Your task to perform on an android device: see creations saved in the google photos Image 0: 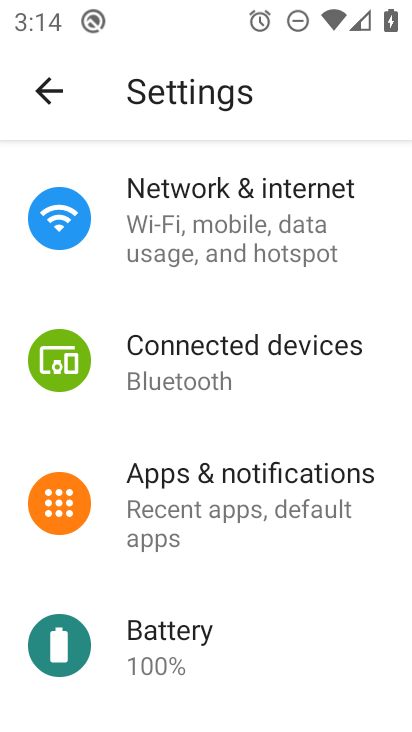
Step 0: drag from (274, 675) to (305, 338)
Your task to perform on an android device: see creations saved in the google photos Image 1: 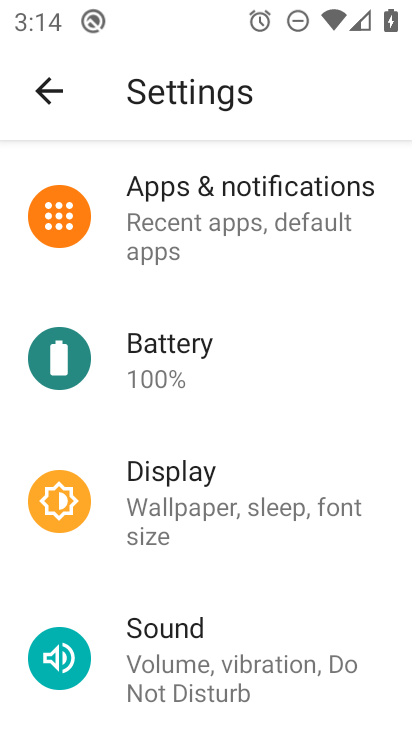
Step 1: drag from (360, 709) to (363, 386)
Your task to perform on an android device: see creations saved in the google photos Image 2: 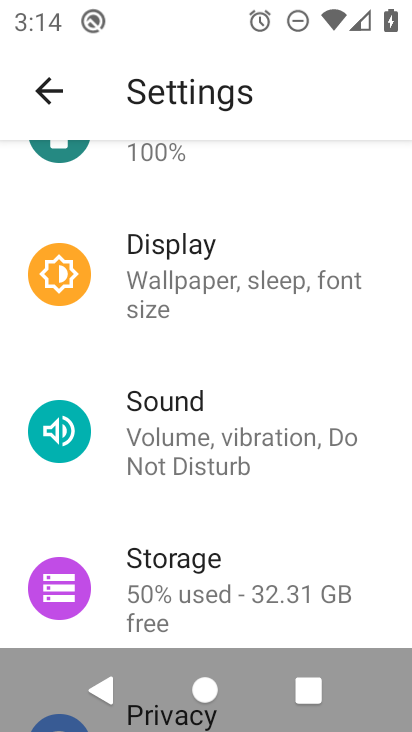
Step 2: drag from (362, 607) to (346, 304)
Your task to perform on an android device: see creations saved in the google photos Image 3: 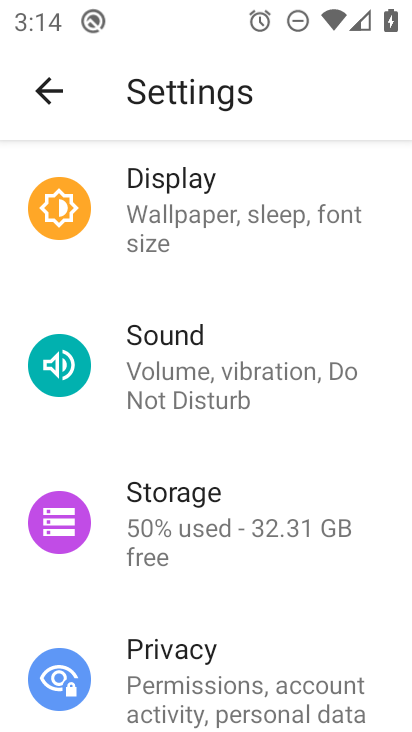
Step 3: press home button
Your task to perform on an android device: see creations saved in the google photos Image 4: 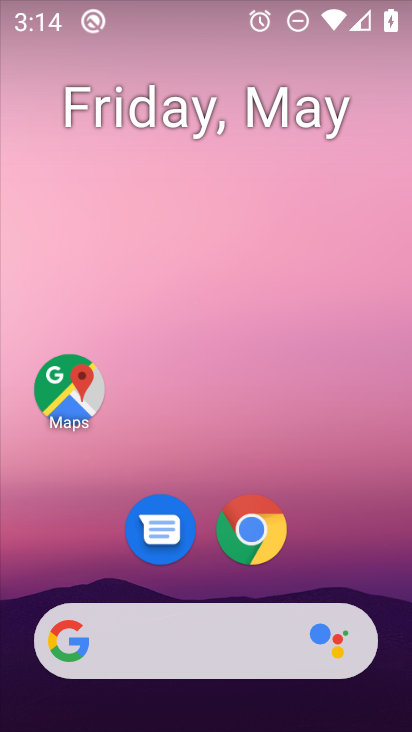
Step 4: drag from (399, 648) to (353, 247)
Your task to perform on an android device: see creations saved in the google photos Image 5: 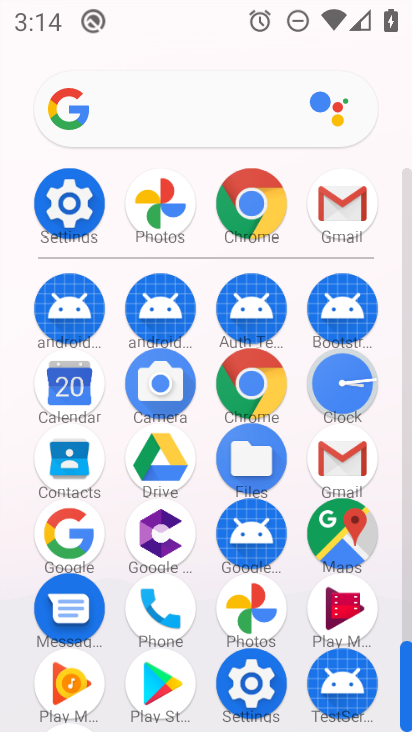
Step 5: click (233, 598)
Your task to perform on an android device: see creations saved in the google photos Image 6: 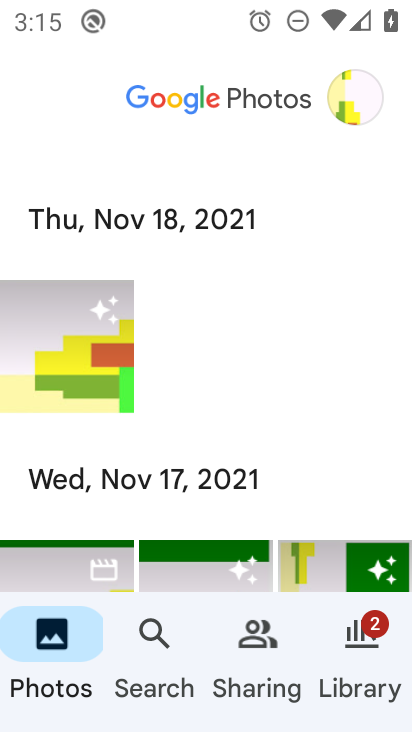
Step 6: drag from (321, 494) to (310, 306)
Your task to perform on an android device: see creations saved in the google photos Image 7: 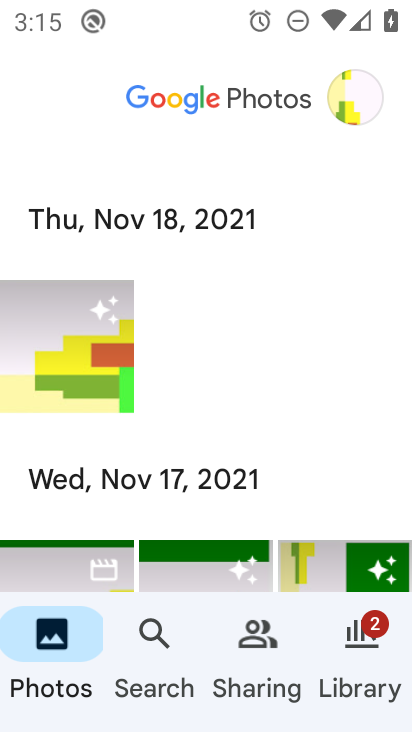
Step 7: click (70, 361)
Your task to perform on an android device: see creations saved in the google photos Image 8: 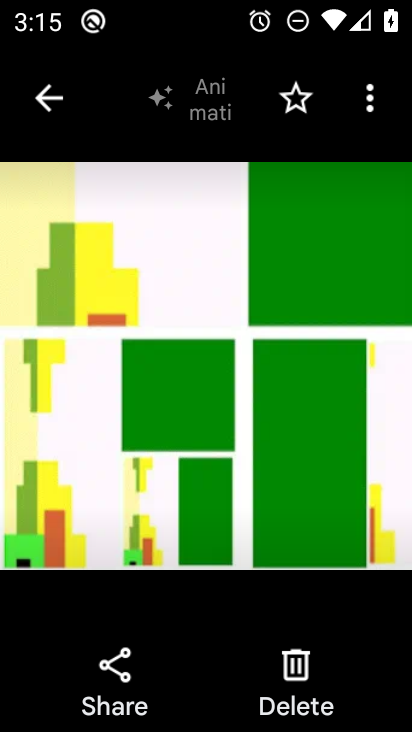
Step 8: task complete